Your task to perform on an android device: Go to Maps Image 0: 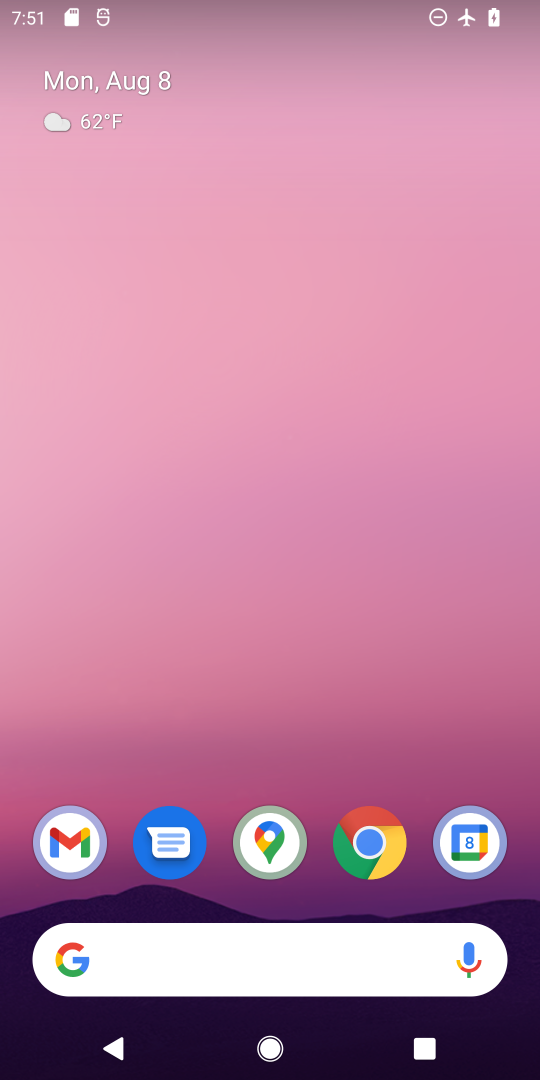
Step 0: click (282, 861)
Your task to perform on an android device: Go to Maps Image 1: 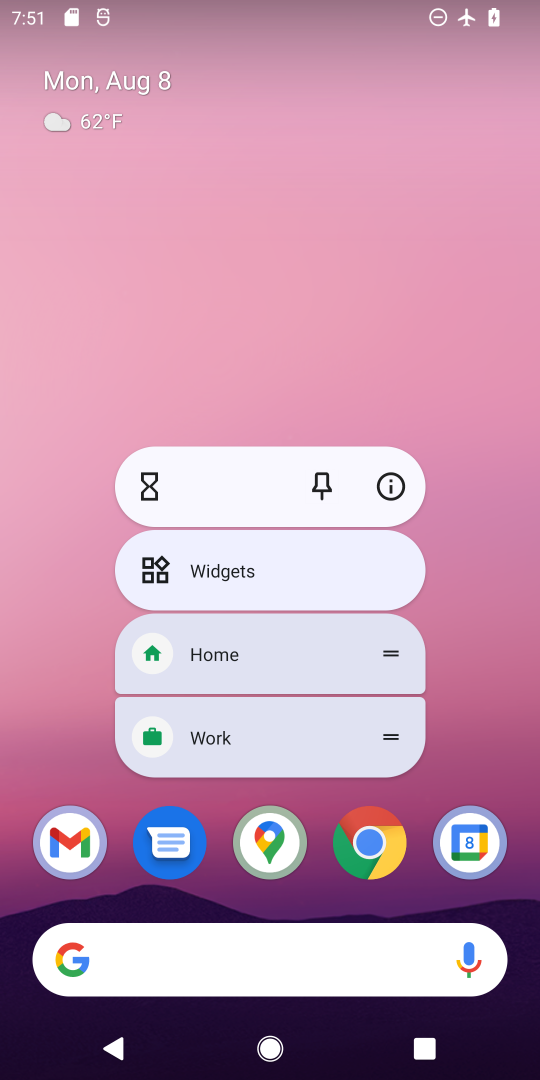
Step 1: click (256, 860)
Your task to perform on an android device: Go to Maps Image 2: 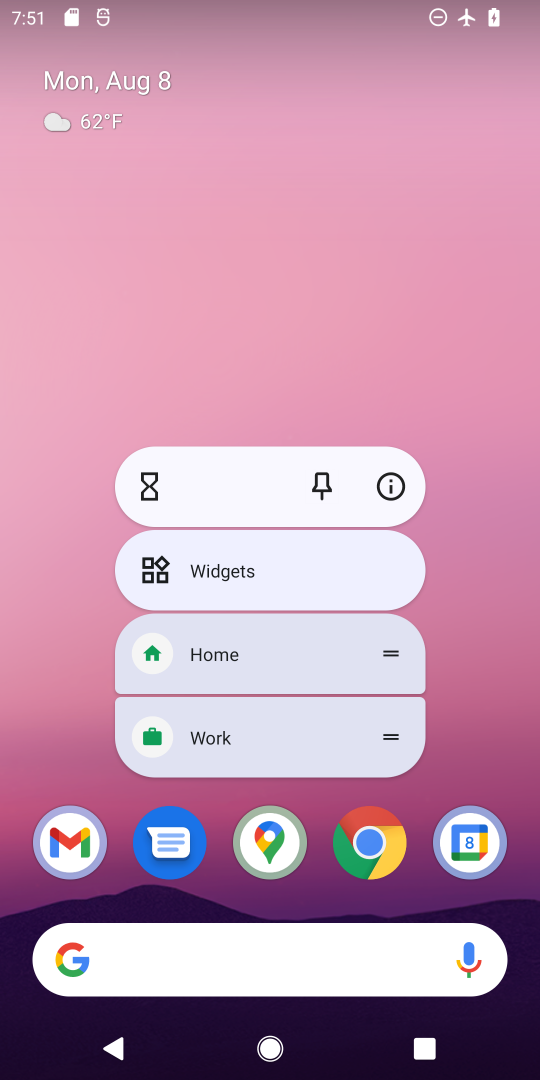
Step 2: click (246, 844)
Your task to perform on an android device: Go to Maps Image 3: 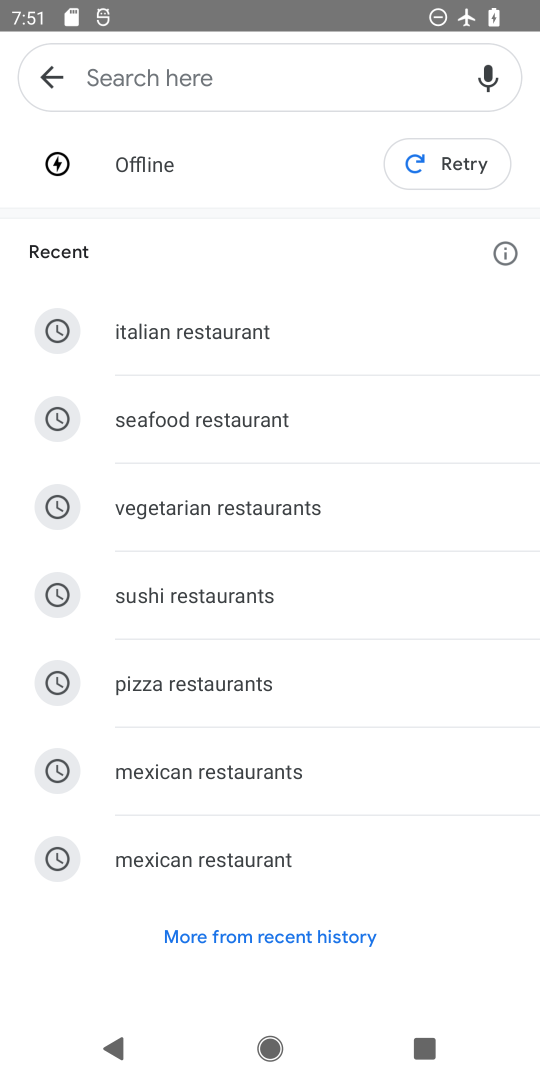
Step 3: click (40, 73)
Your task to perform on an android device: Go to Maps Image 4: 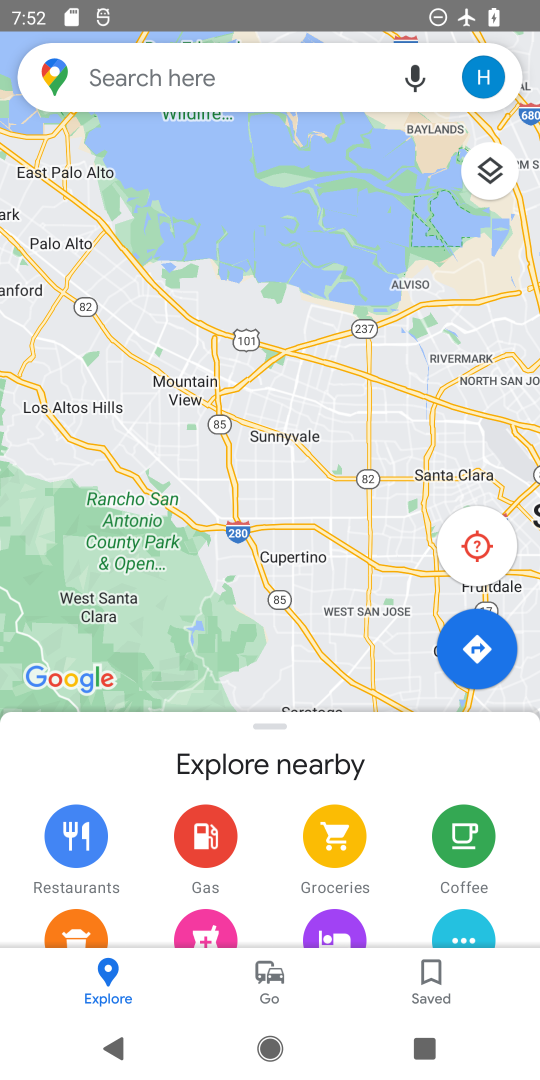
Step 4: task complete